Your task to perform on an android device: Open accessibility settings Image 0: 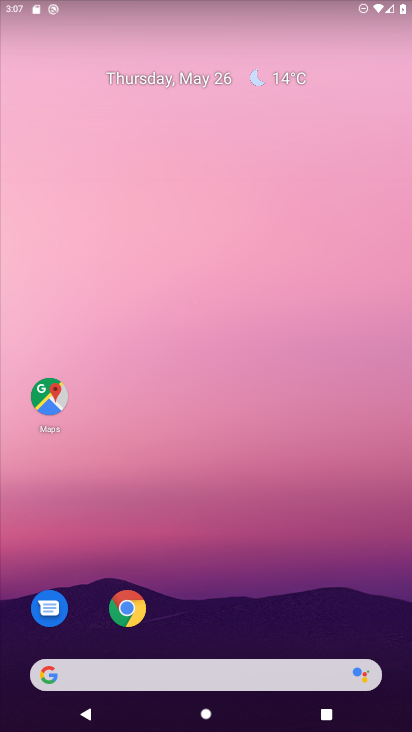
Step 0: drag from (327, 559) to (342, 26)
Your task to perform on an android device: Open accessibility settings Image 1: 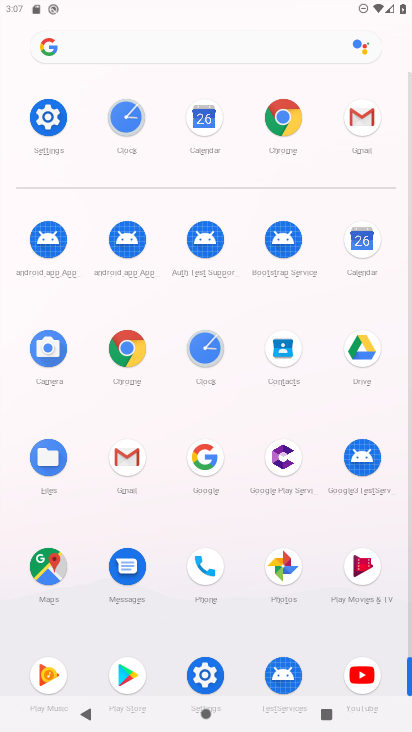
Step 1: click (58, 124)
Your task to perform on an android device: Open accessibility settings Image 2: 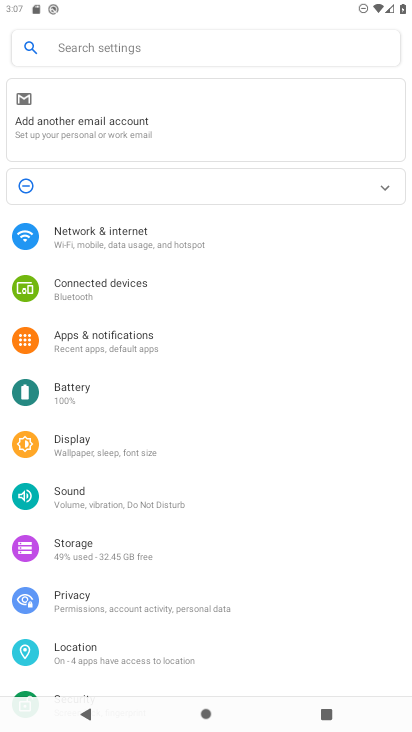
Step 2: drag from (191, 624) to (215, 273)
Your task to perform on an android device: Open accessibility settings Image 3: 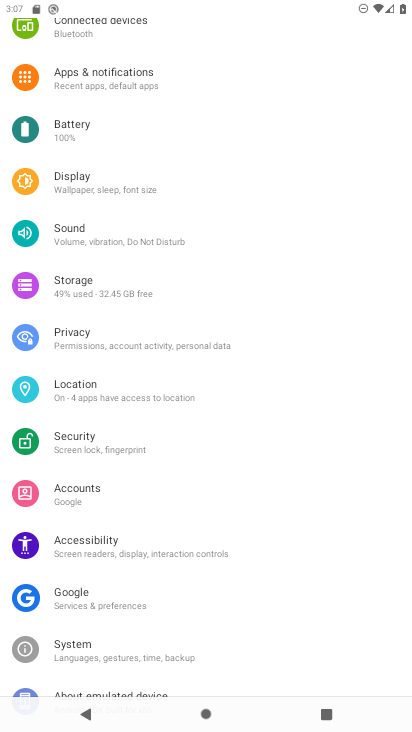
Step 3: click (139, 553)
Your task to perform on an android device: Open accessibility settings Image 4: 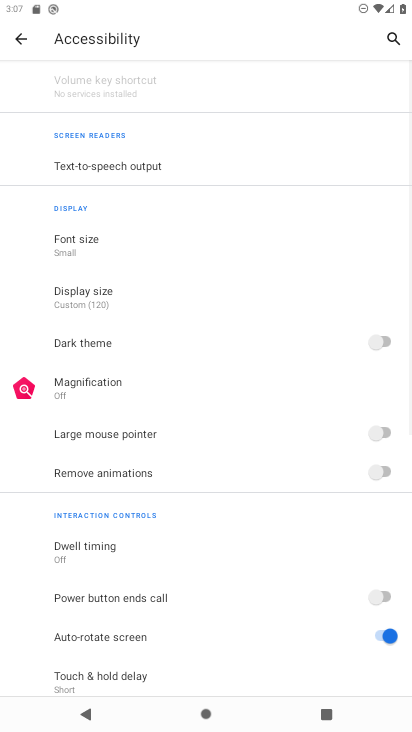
Step 4: task complete